Your task to perform on an android device: Go to Maps Image 0: 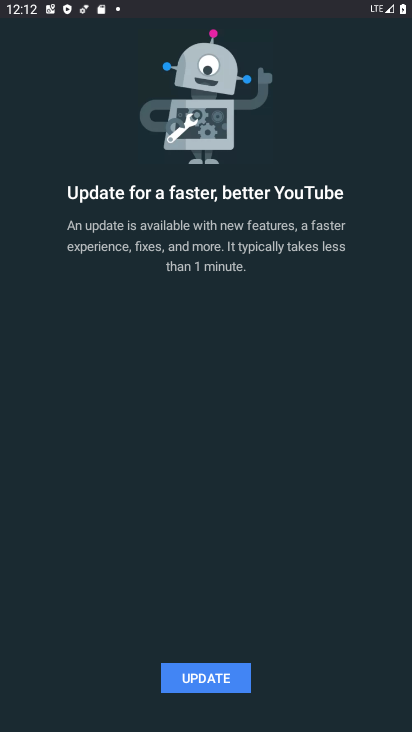
Step 0: press home button
Your task to perform on an android device: Go to Maps Image 1: 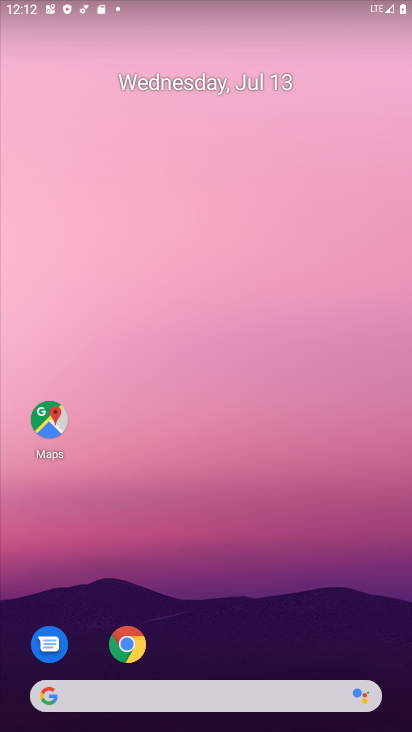
Step 1: click (46, 420)
Your task to perform on an android device: Go to Maps Image 2: 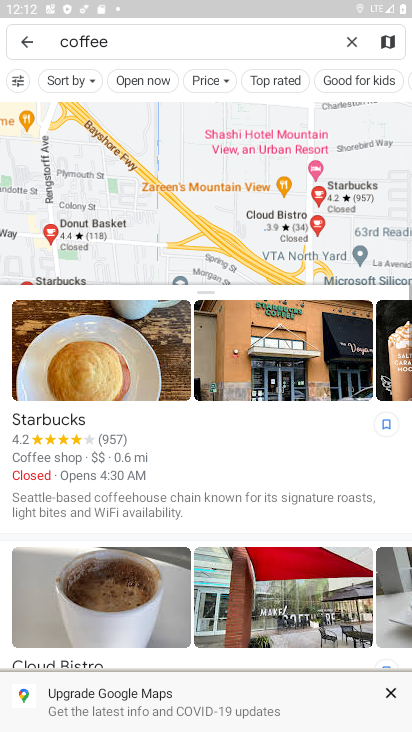
Step 2: task complete